Your task to perform on an android device: Is it going to rain tomorrow? Image 0: 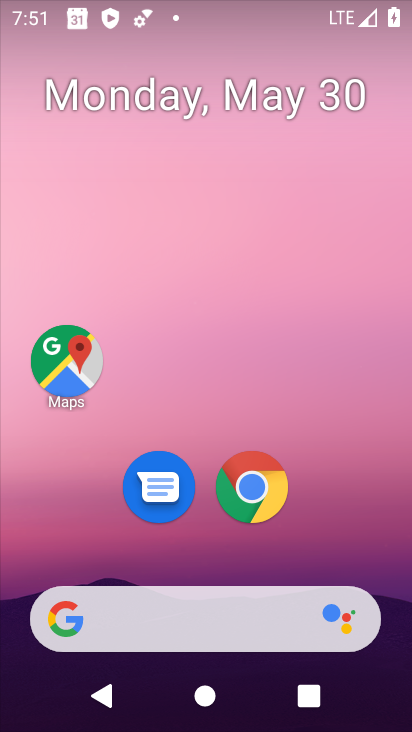
Step 0: drag from (1, 222) to (364, 209)
Your task to perform on an android device: Is it going to rain tomorrow? Image 1: 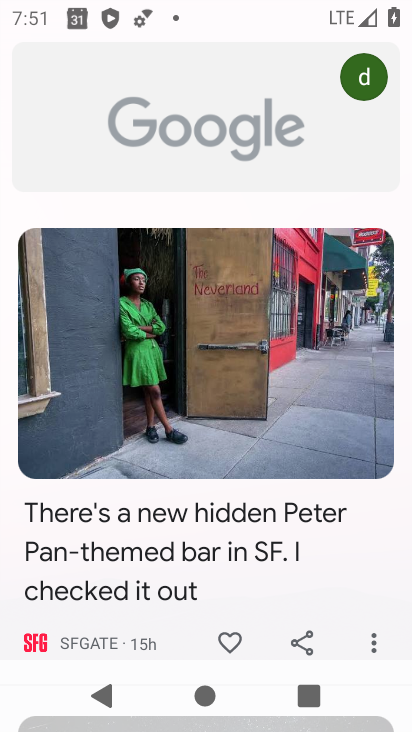
Step 1: task complete